Your task to perform on an android device: Go to Amazon Image 0: 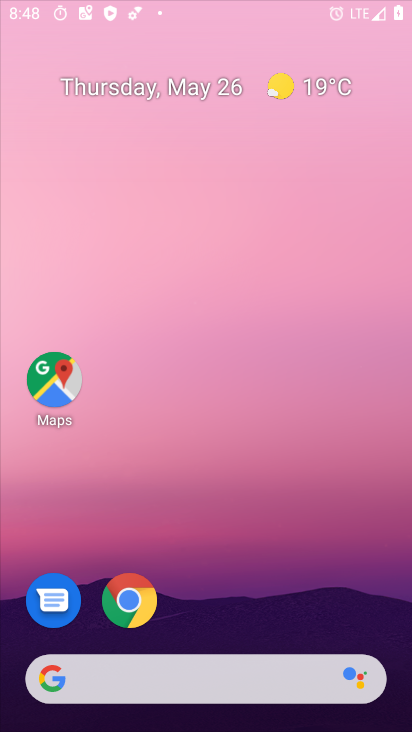
Step 0: press home button
Your task to perform on an android device: Go to Amazon Image 1: 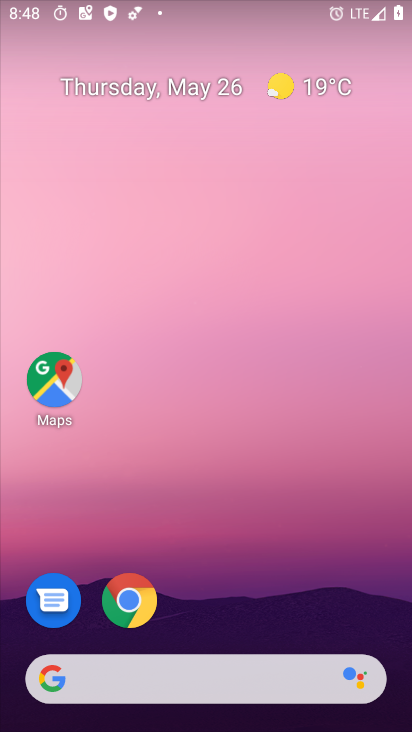
Step 1: click (65, 676)
Your task to perform on an android device: Go to Amazon Image 2: 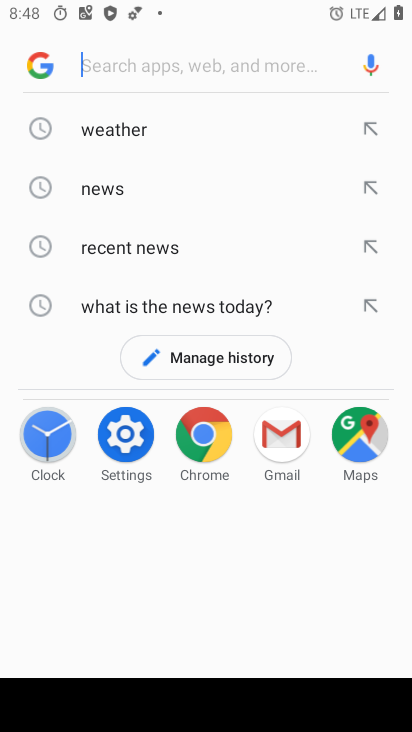
Step 2: type "Amazon"
Your task to perform on an android device: Go to Amazon Image 3: 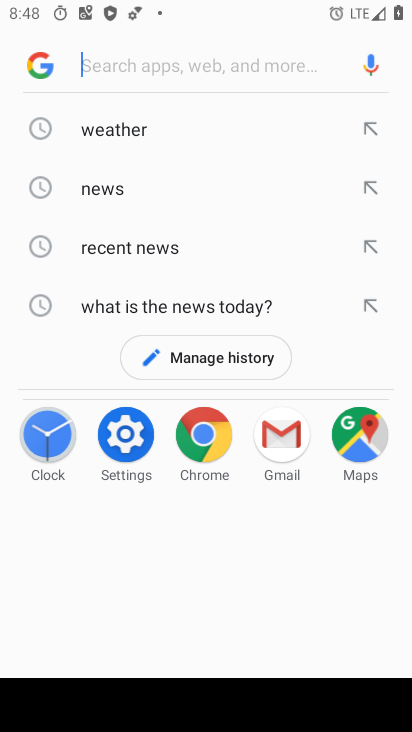
Step 3: click (213, 74)
Your task to perform on an android device: Go to Amazon Image 4: 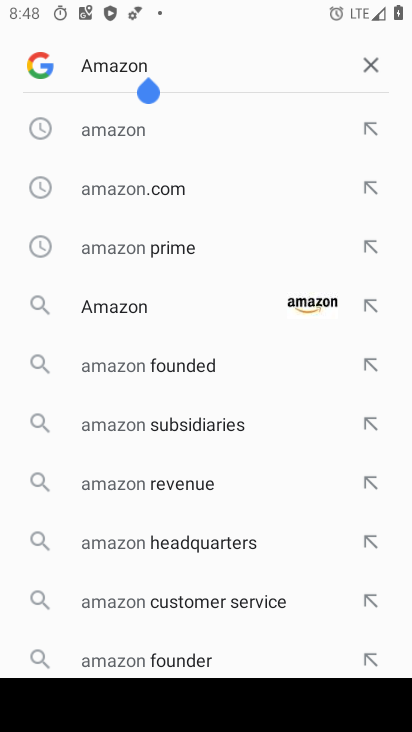
Step 4: click (121, 134)
Your task to perform on an android device: Go to Amazon Image 5: 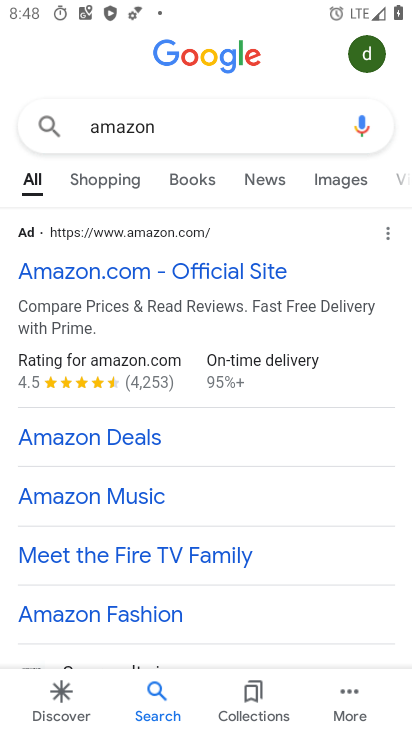
Step 5: click (105, 274)
Your task to perform on an android device: Go to Amazon Image 6: 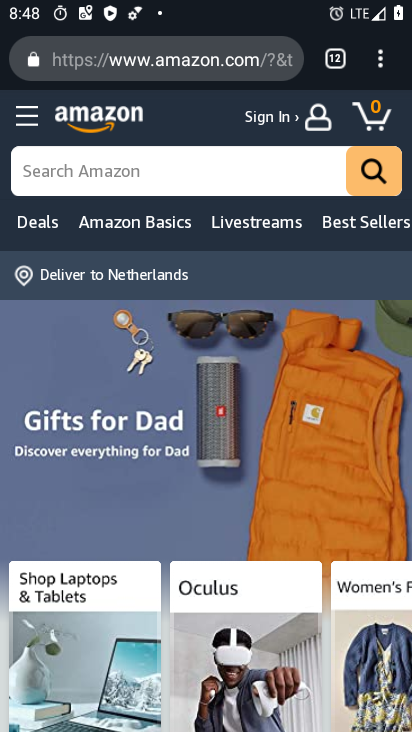
Step 6: task complete